Your task to perform on an android device: manage bookmarks in the chrome app Image 0: 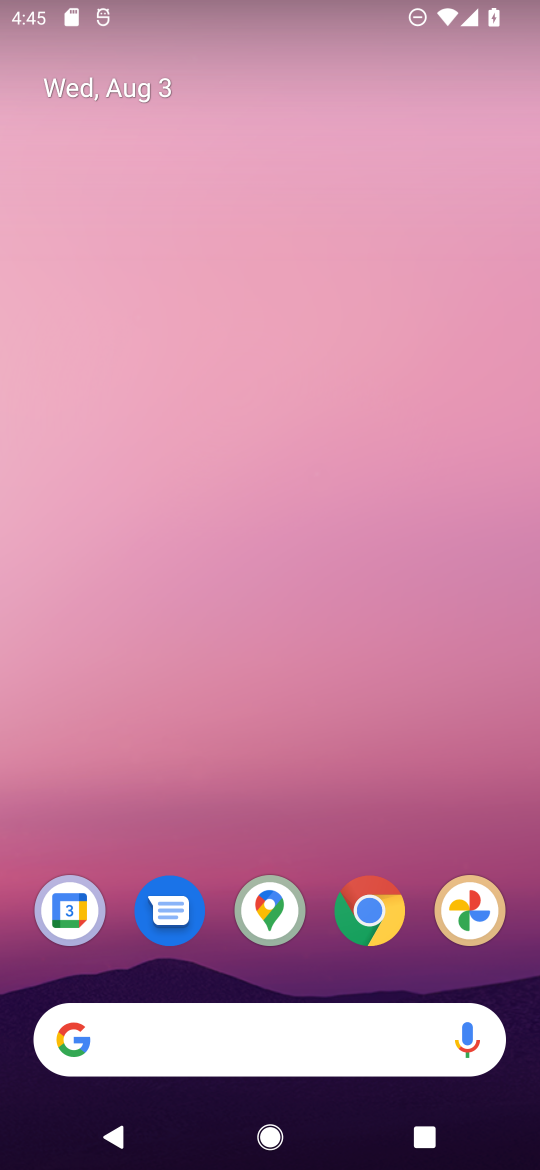
Step 0: click (373, 905)
Your task to perform on an android device: manage bookmarks in the chrome app Image 1: 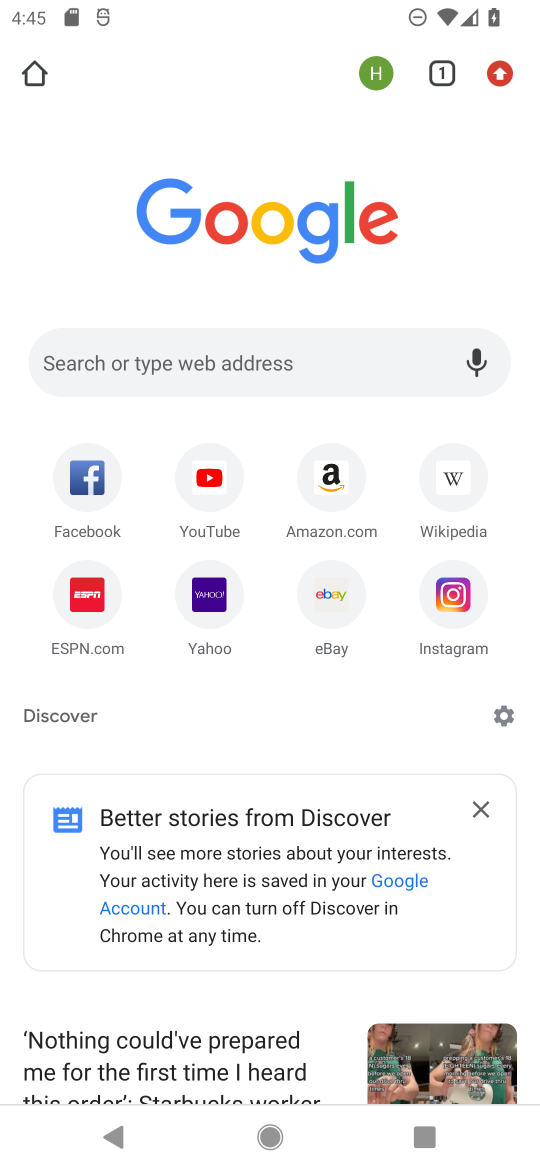
Step 1: click (507, 60)
Your task to perform on an android device: manage bookmarks in the chrome app Image 2: 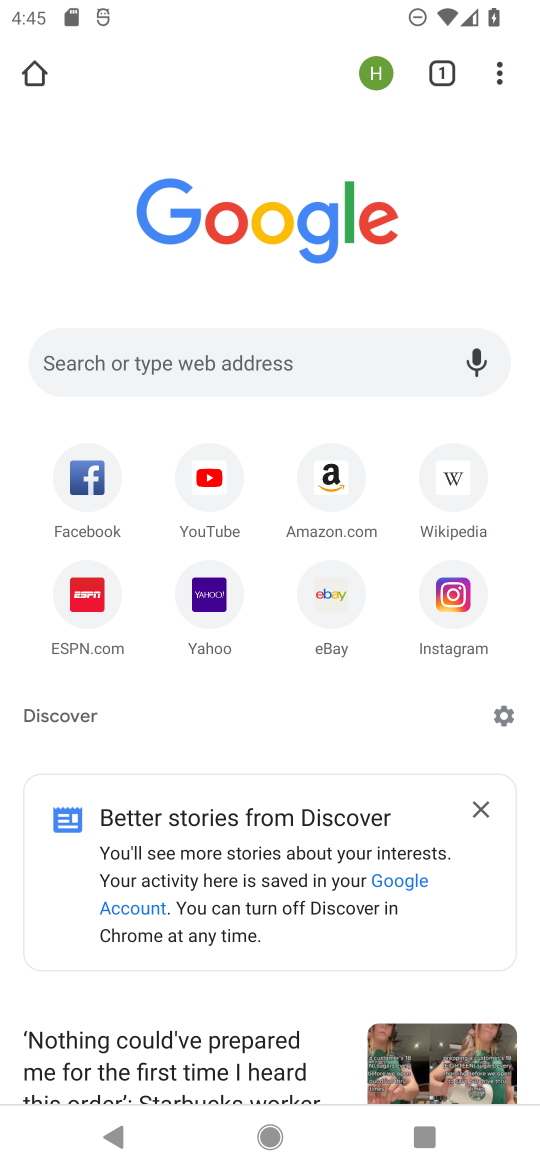
Step 2: click (500, 70)
Your task to perform on an android device: manage bookmarks in the chrome app Image 3: 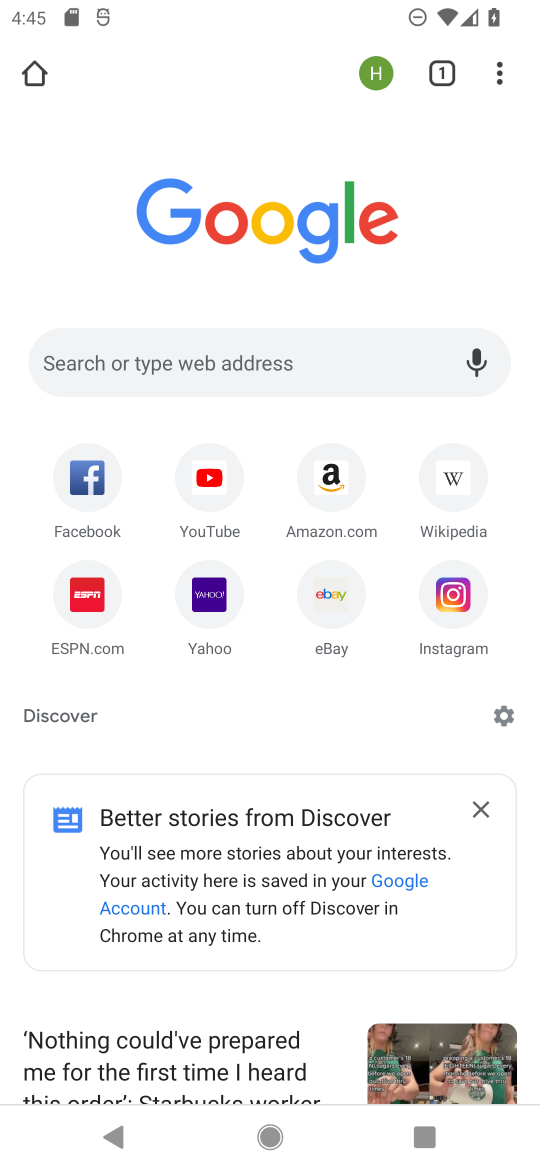
Step 3: click (489, 70)
Your task to perform on an android device: manage bookmarks in the chrome app Image 4: 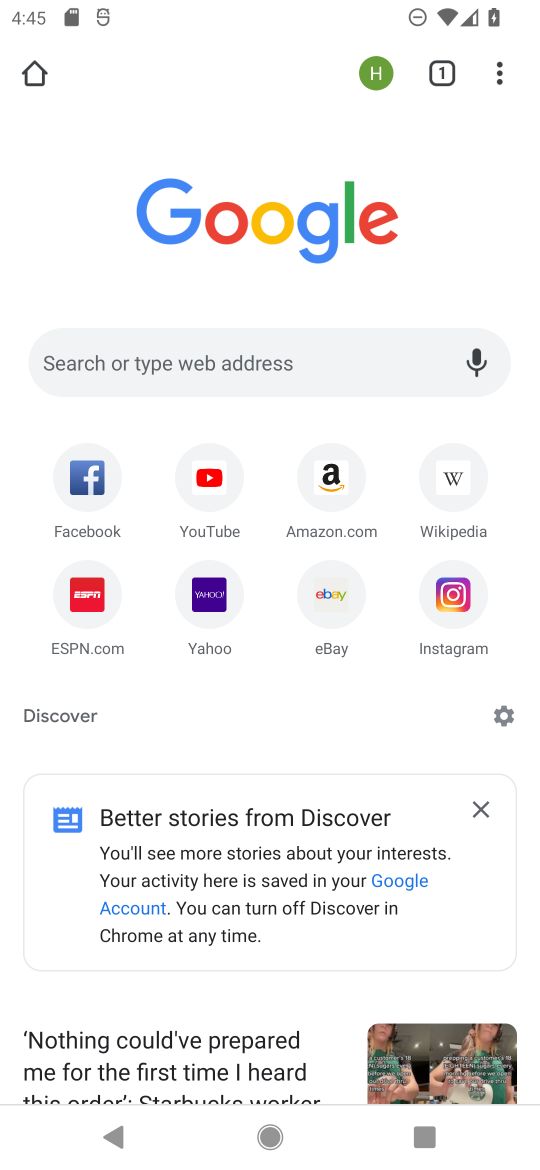
Step 4: click (502, 74)
Your task to perform on an android device: manage bookmarks in the chrome app Image 5: 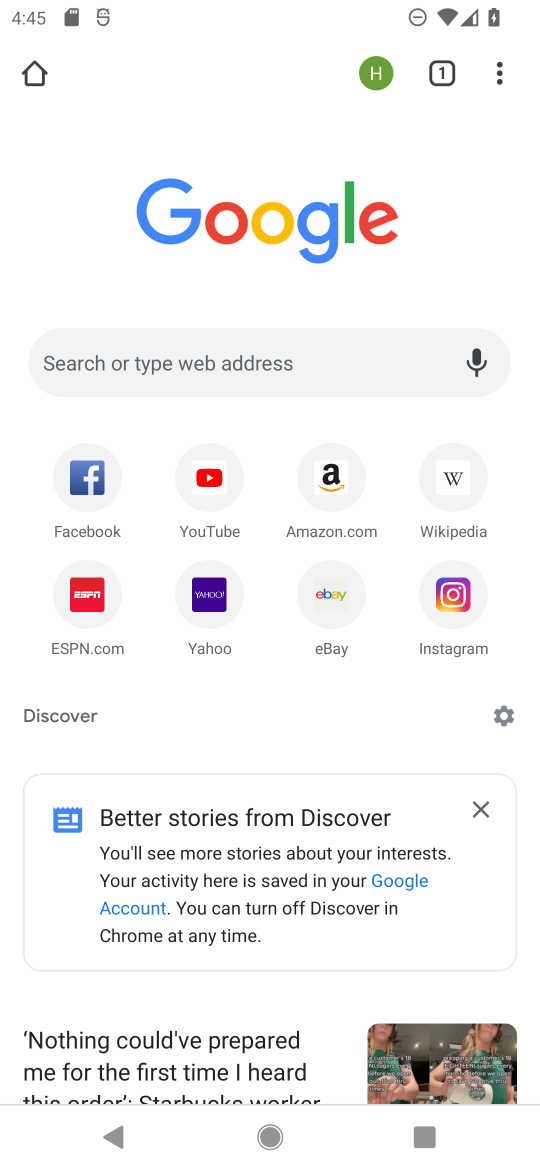
Step 5: click (505, 85)
Your task to perform on an android device: manage bookmarks in the chrome app Image 6: 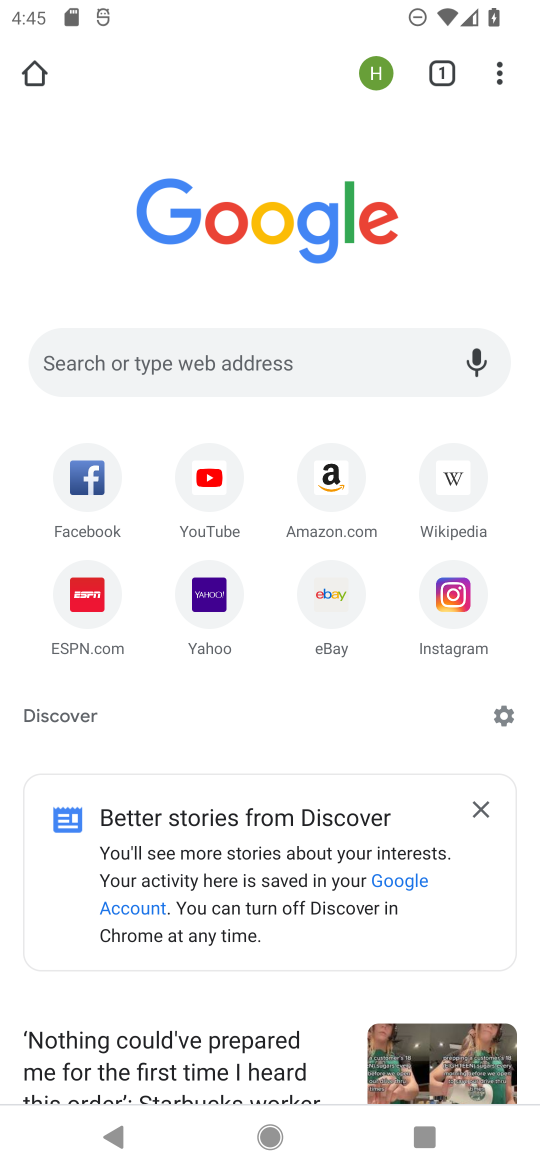
Step 6: click (495, 61)
Your task to perform on an android device: manage bookmarks in the chrome app Image 7: 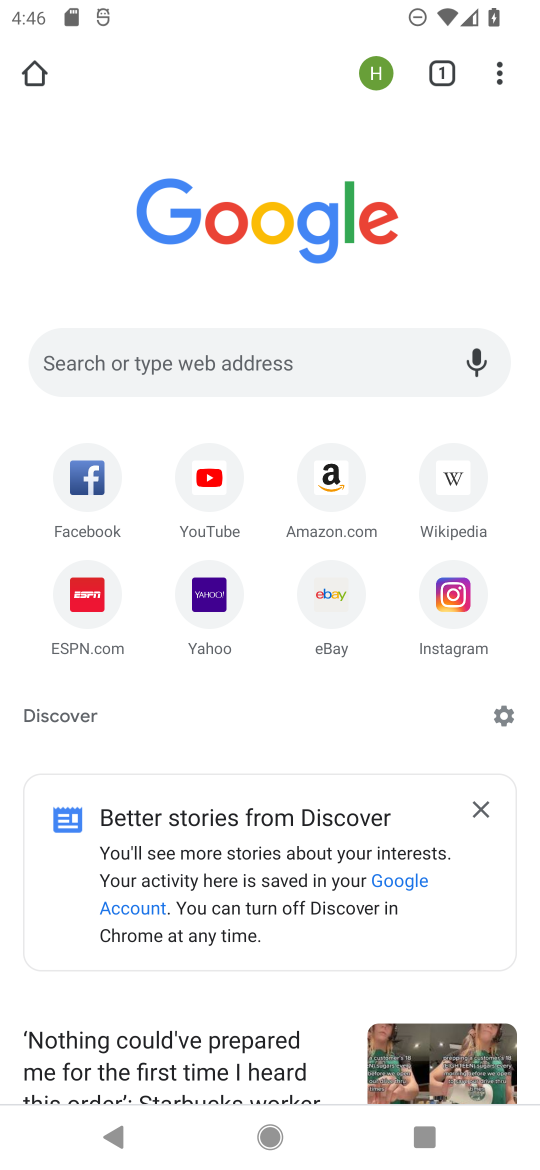
Step 7: click (496, 57)
Your task to perform on an android device: manage bookmarks in the chrome app Image 8: 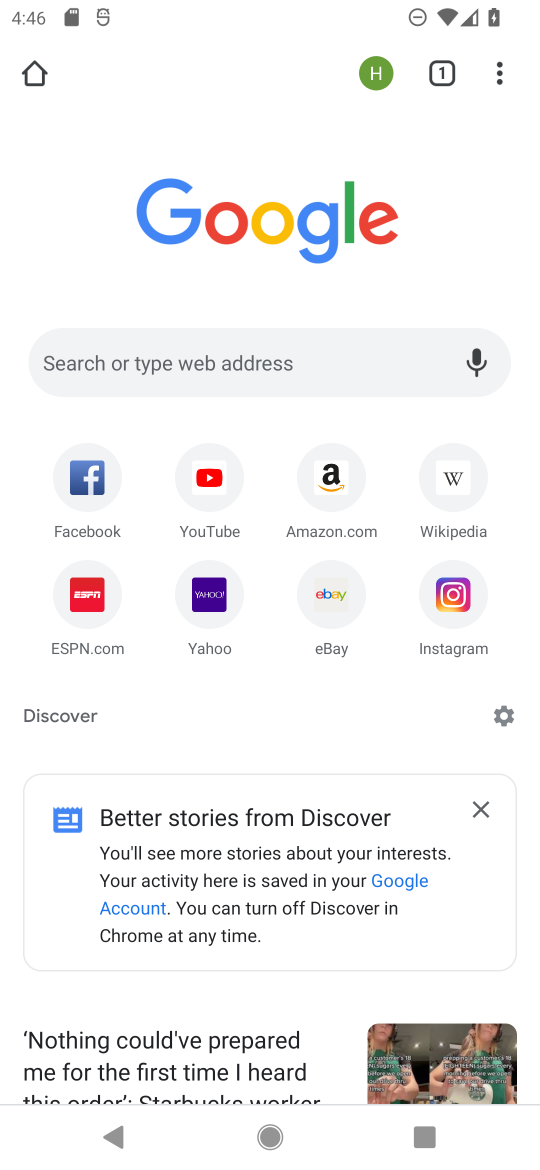
Step 8: task complete